Your task to perform on an android device: set default search engine in the chrome app Image 0: 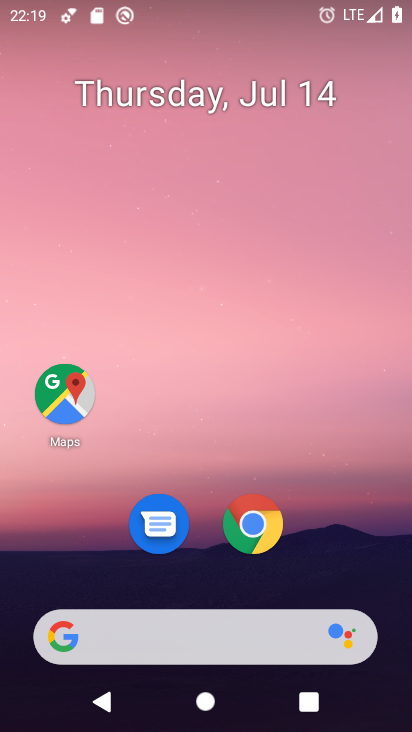
Step 0: drag from (215, 464) to (244, 19)
Your task to perform on an android device: set default search engine in the chrome app Image 1: 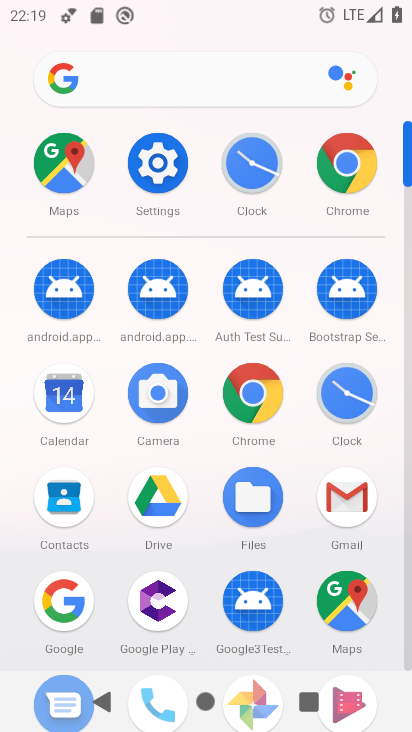
Step 1: click (171, 161)
Your task to perform on an android device: set default search engine in the chrome app Image 2: 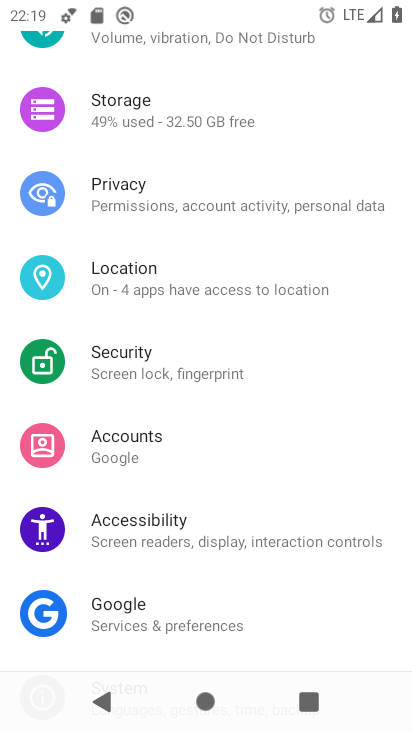
Step 2: drag from (238, 167) to (263, 581)
Your task to perform on an android device: set default search engine in the chrome app Image 3: 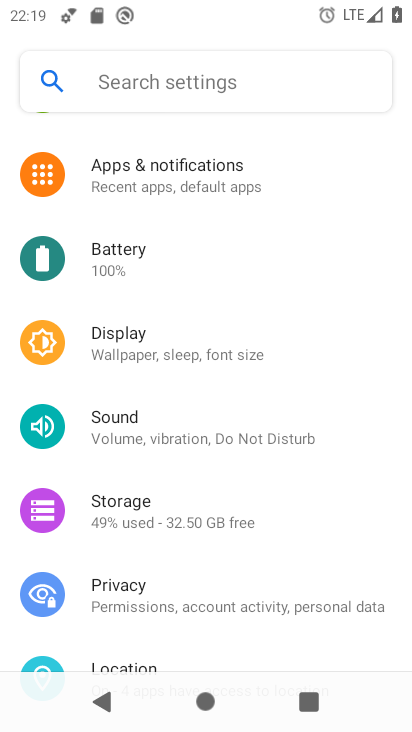
Step 3: drag from (244, 516) to (241, 232)
Your task to perform on an android device: set default search engine in the chrome app Image 4: 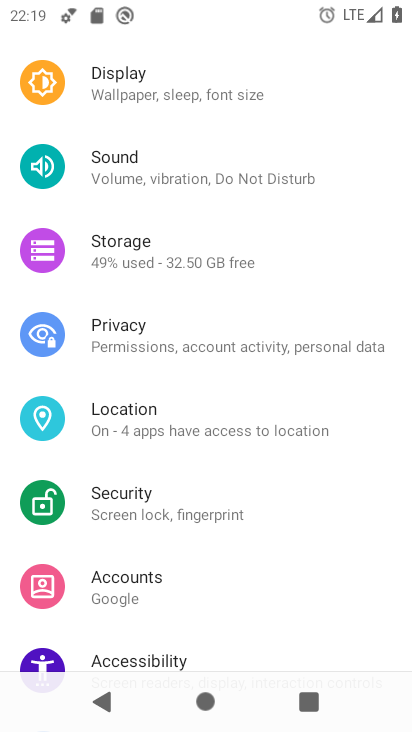
Step 4: press home button
Your task to perform on an android device: set default search engine in the chrome app Image 5: 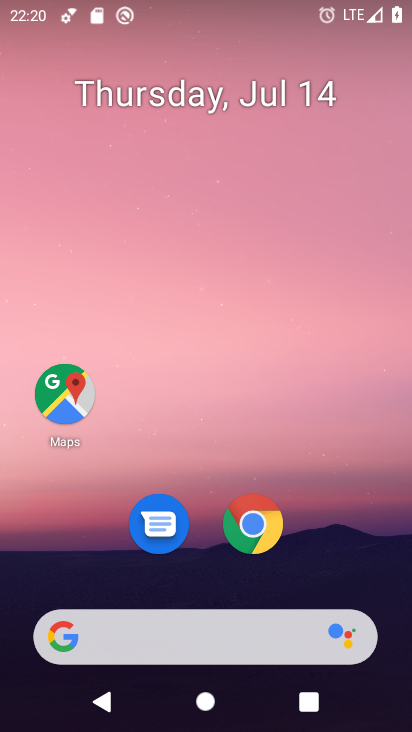
Step 5: click (257, 529)
Your task to perform on an android device: set default search engine in the chrome app Image 6: 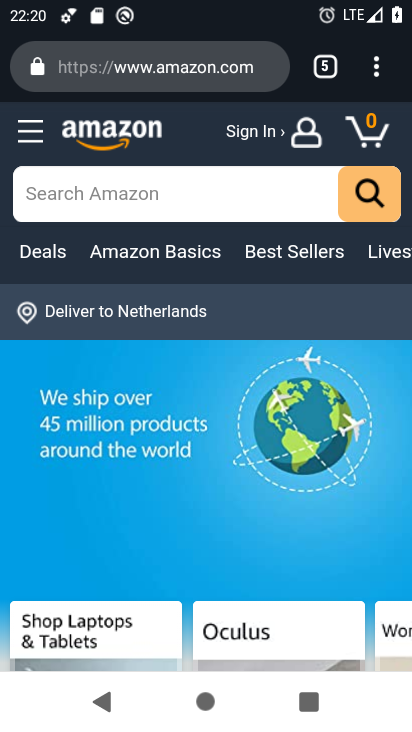
Step 6: click (371, 71)
Your task to perform on an android device: set default search engine in the chrome app Image 7: 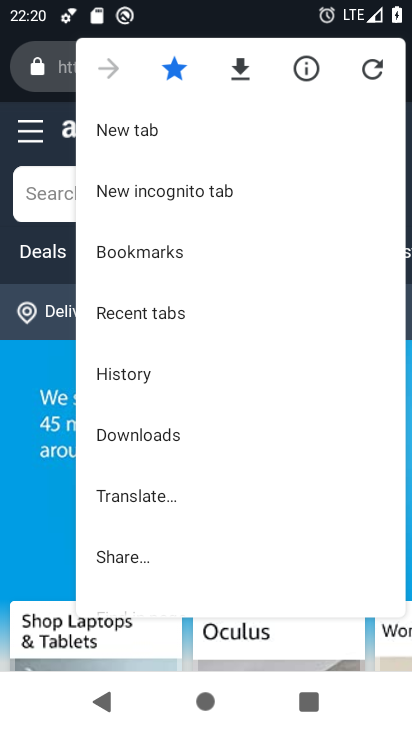
Step 7: drag from (212, 404) to (257, 182)
Your task to perform on an android device: set default search engine in the chrome app Image 8: 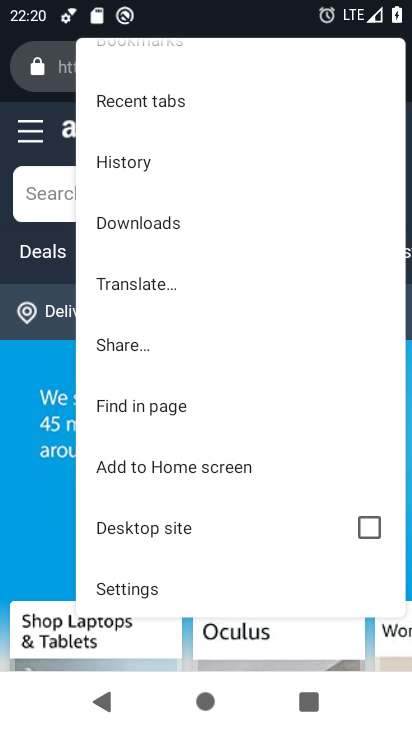
Step 8: click (151, 577)
Your task to perform on an android device: set default search engine in the chrome app Image 9: 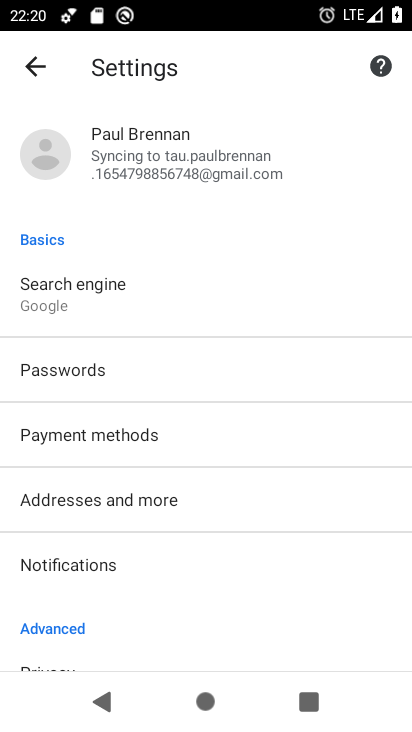
Step 9: click (109, 299)
Your task to perform on an android device: set default search engine in the chrome app Image 10: 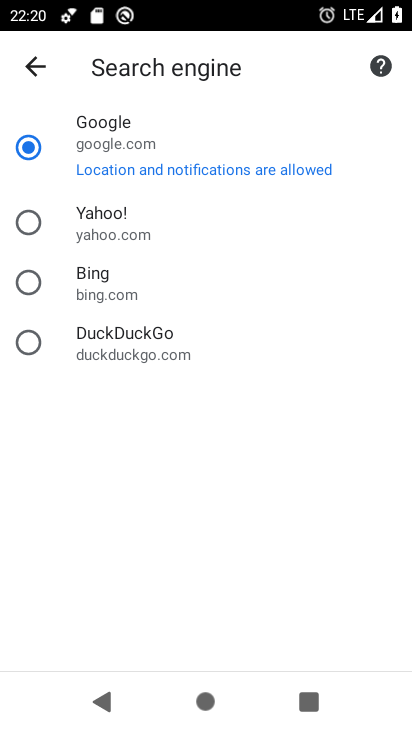
Step 10: task complete